Your task to perform on an android device: Open calendar and show me the first week of next month Image 0: 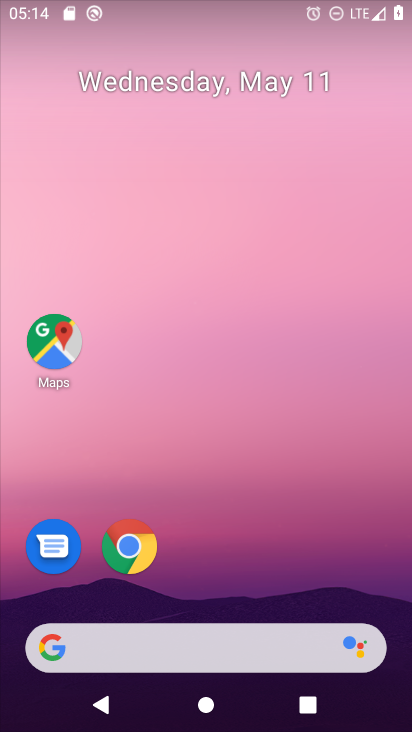
Step 0: drag from (324, 636) to (384, 4)
Your task to perform on an android device: Open calendar and show me the first week of next month Image 1: 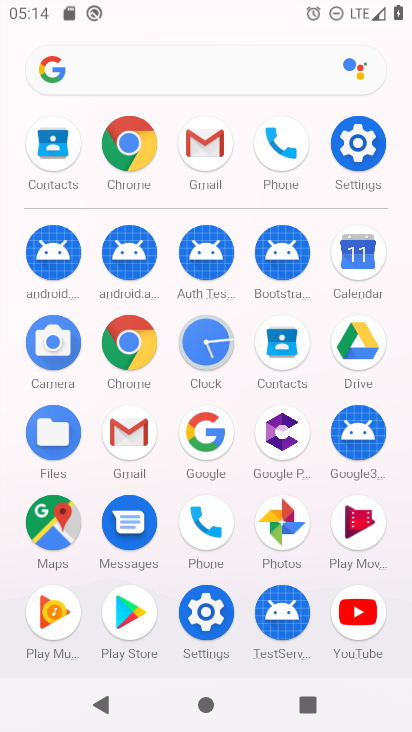
Step 1: click (348, 273)
Your task to perform on an android device: Open calendar and show me the first week of next month Image 2: 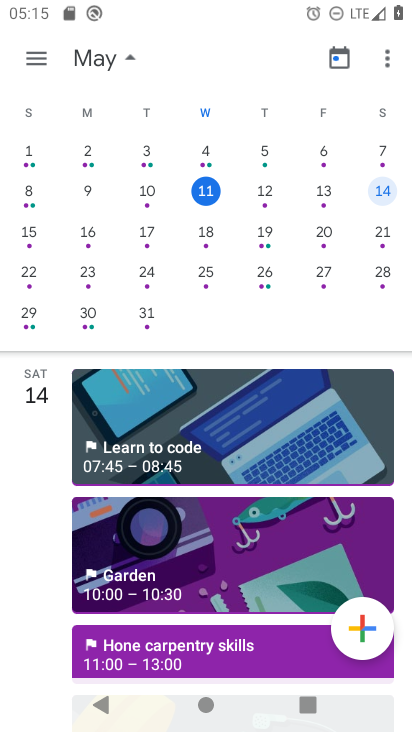
Step 2: drag from (349, 226) to (23, 233)
Your task to perform on an android device: Open calendar and show me the first week of next month Image 3: 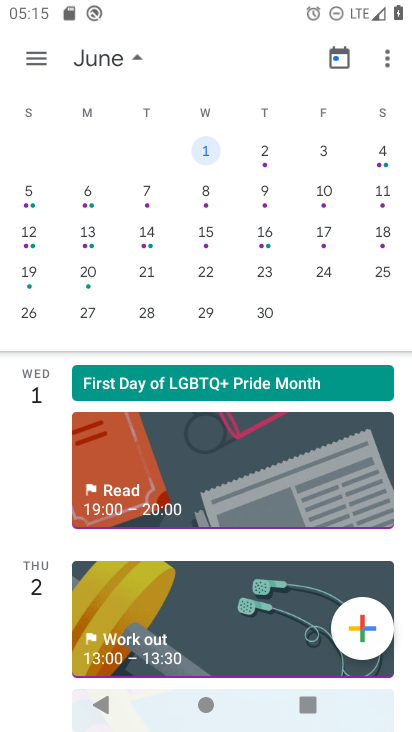
Step 3: click (368, 150)
Your task to perform on an android device: Open calendar and show me the first week of next month Image 4: 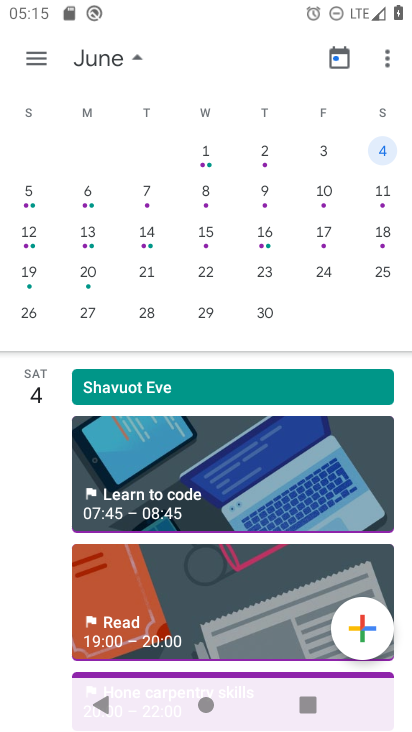
Step 4: task complete